Your task to perform on an android device: turn on the 12-hour format for clock Image 0: 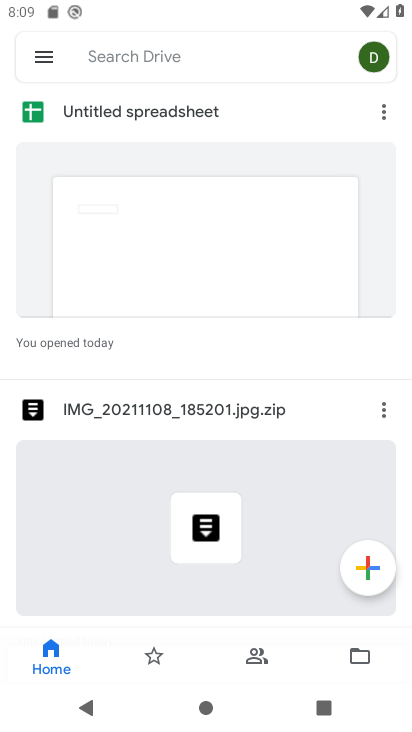
Step 0: press back button
Your task to perform on an android device: turn on the 12-hour format for clock Image 1: 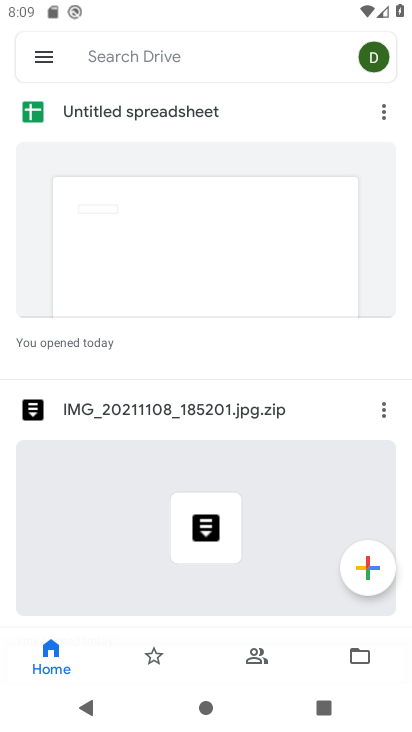
Step 1: press home button
Your task to perform on an android device: turn on the 12-hour format for clock Image 2: 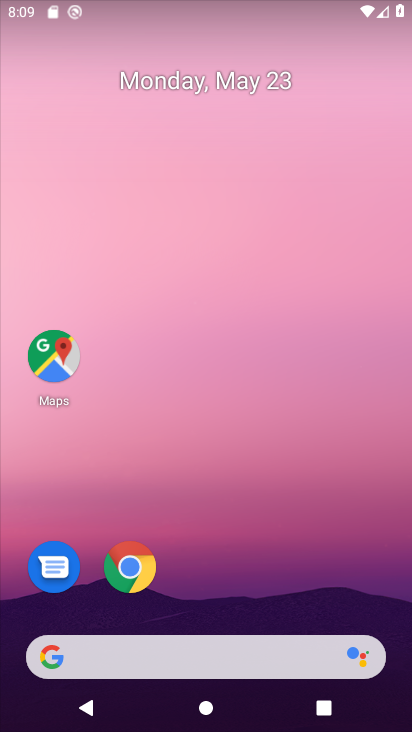
Step 2: drag from (223, 588) to (211, 100)
Your task to perform on an android device: turn on the 12-hour format for clock Image 3: 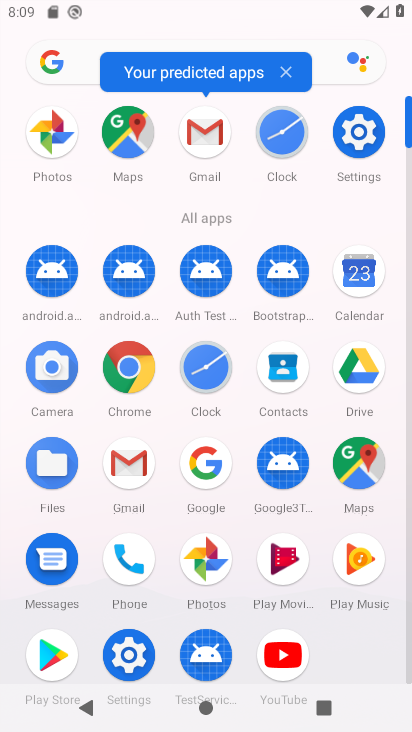
Step 3: drag from (295, 131) to (160, 260)
Your task to perform on an android device: turn on the 12-hour format for clock Image 4: 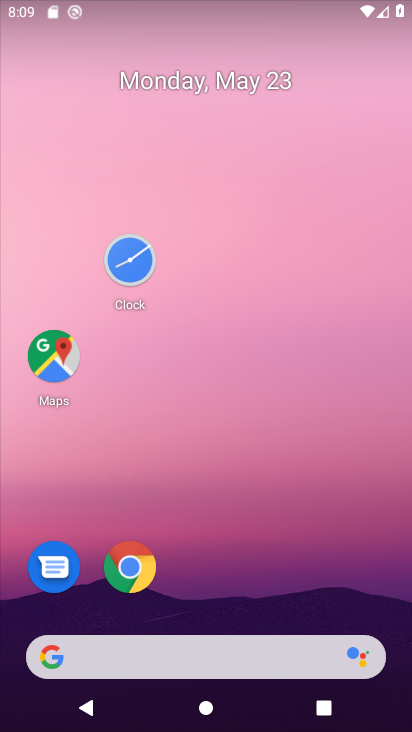
Step 4: click (146, 267)
Your task to perform on an android device: turn on the 12-hour format for clock Image 5: 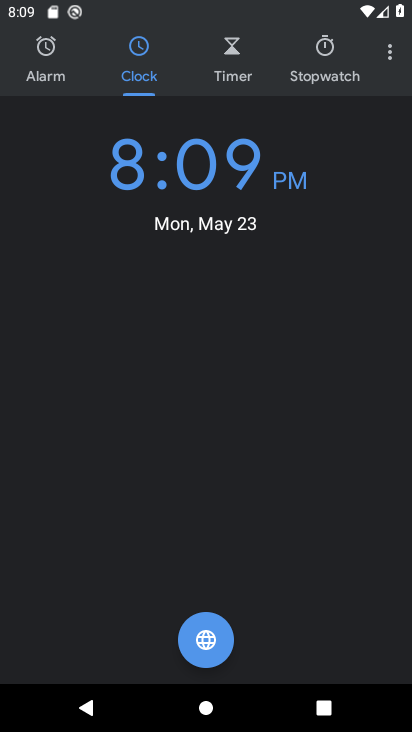
Step 5: click (390, 48)
Your task to perform on an android device: turn on the 12-hour format for clock Image 6: 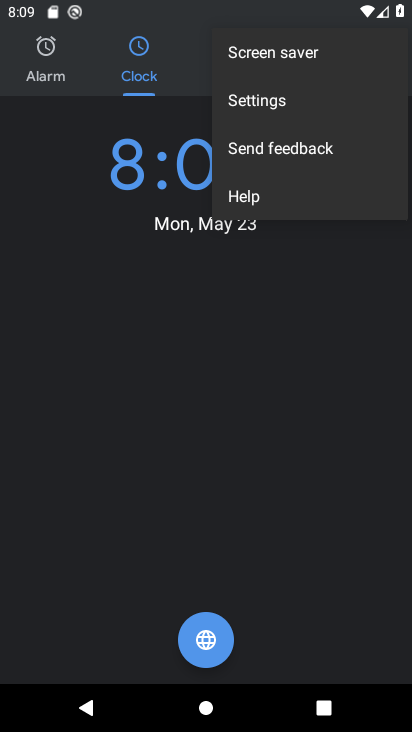
Step 6: click (253, 101)
Your task to perform on an android device: turn on the 12-hour format for clock Image 7: 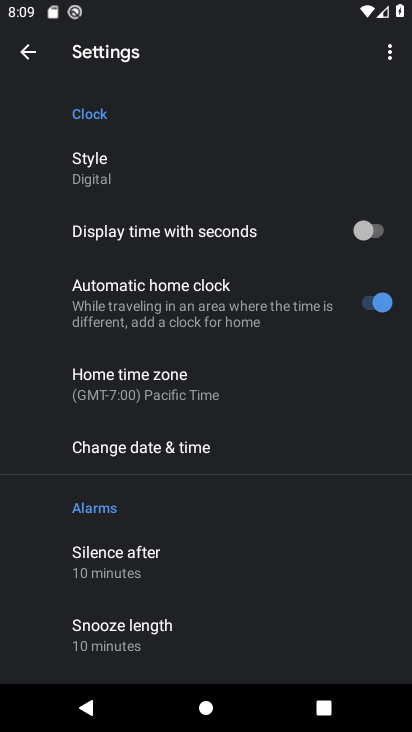
Step 7: click (183, 457)
Your task to perform on an android device: turn on the 12-hour format for clock Image 8: 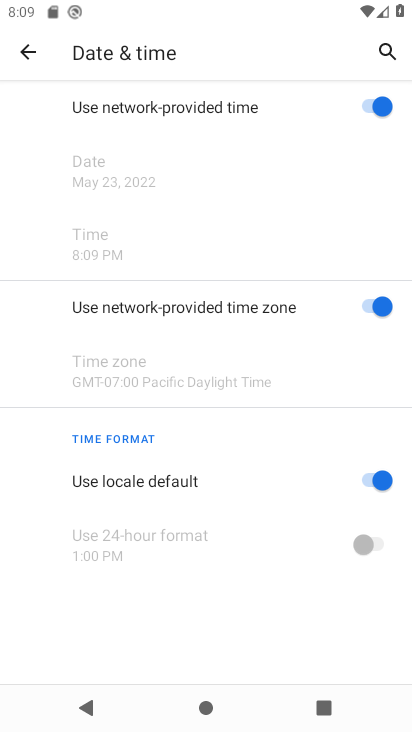
Step 8: task complete